Your task to perform on an android device: What is the news today? Image 0: 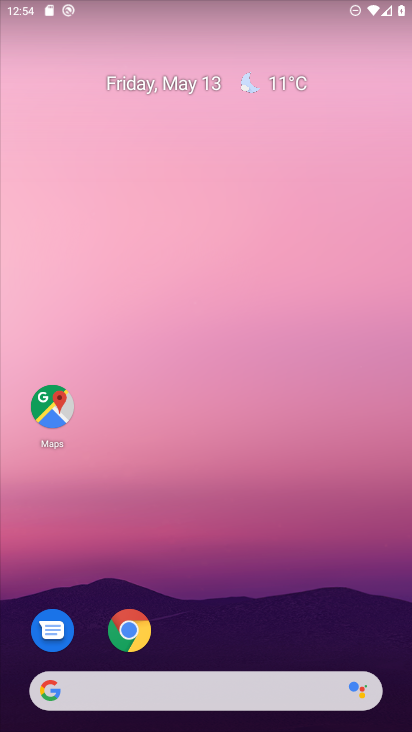
Step 0: drag from (267, 591) to (272, 198)
Your task to perform on an android device: What is the news today? Image 1: 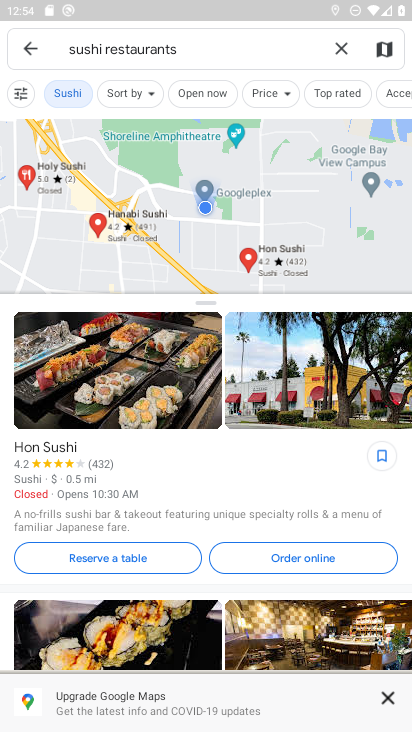
Step 1: press home button
Your task to perform on an android device: What is the news today? Image 2: 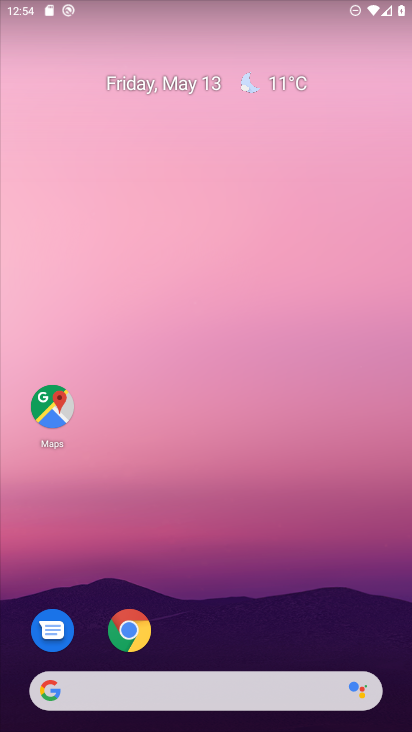
Step 2: drag from (337, 600) to (308, 177)
Your task to perform on an android device: What is the news today? Image 3: 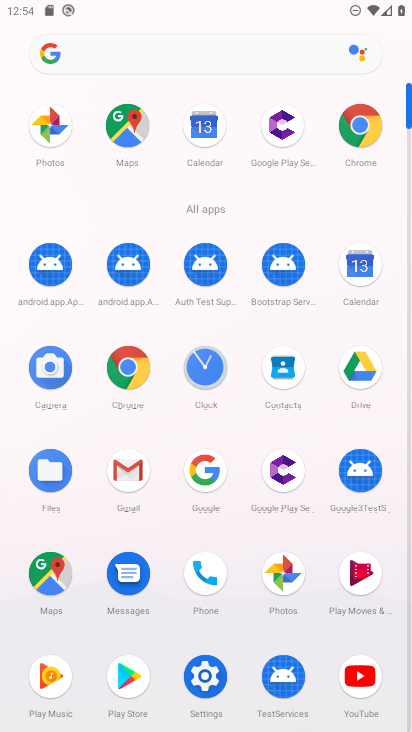
Step 3: click (369, 127)
Your task to perform on an android device: What is the news today? Image 4: 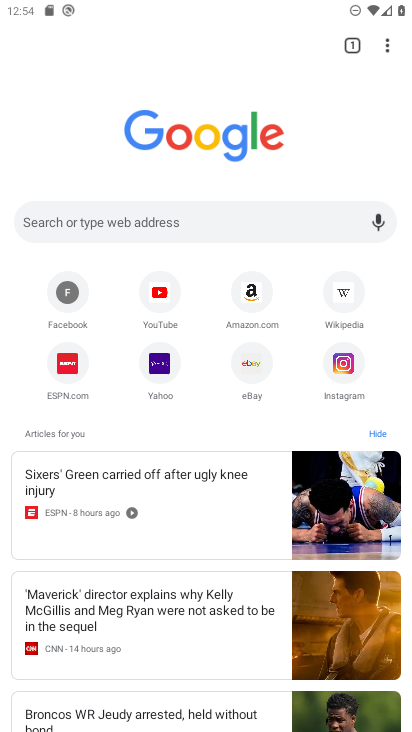
Step 4: click (251, 230)
Your task to perform on an android device: What is the news today? Image 5: 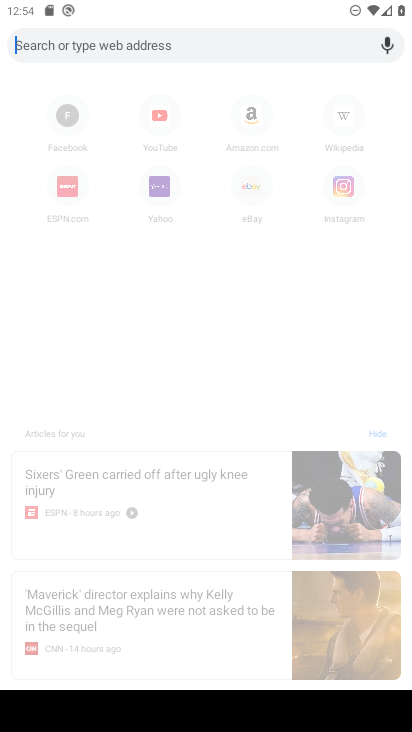
Step 5: type "news"
Your task to perform on an android device: What is the news today? Image 6: 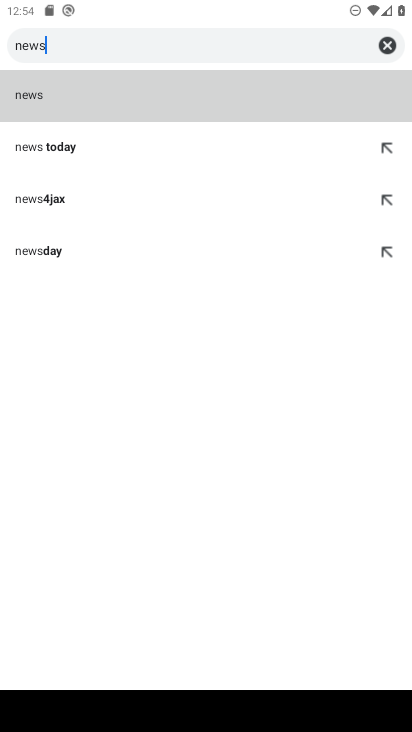
Step 6: click (25, 100)
Your task to perform on an android device: What is the news today? Image 7: 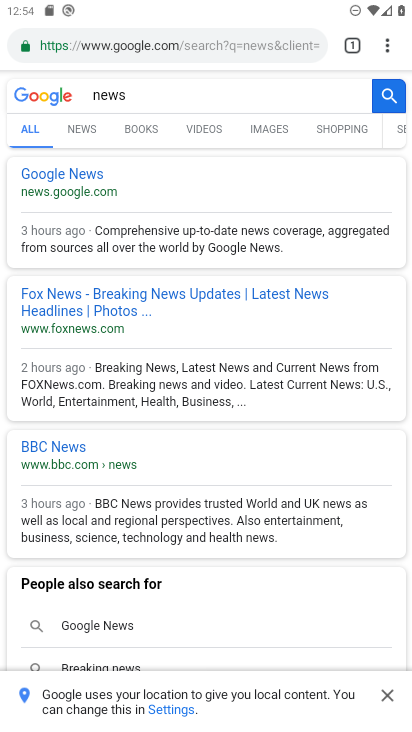
Step 7: click (81, 125)
Your task to perform on an android device: What is the news today? Image 8: 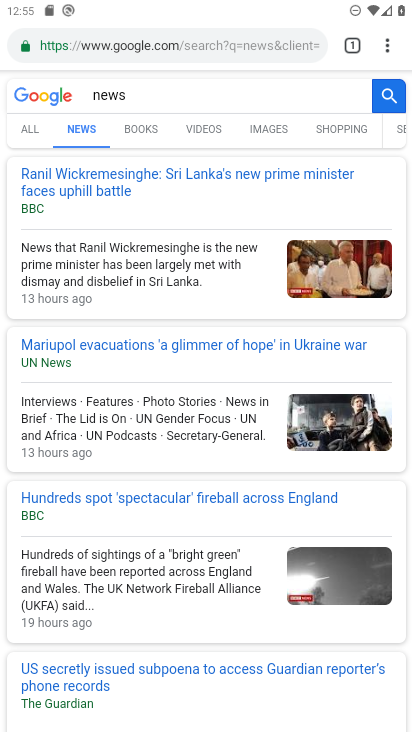
Step 8: task complete